Your task to perform on an android device: Turn off the flashlight Image 0: 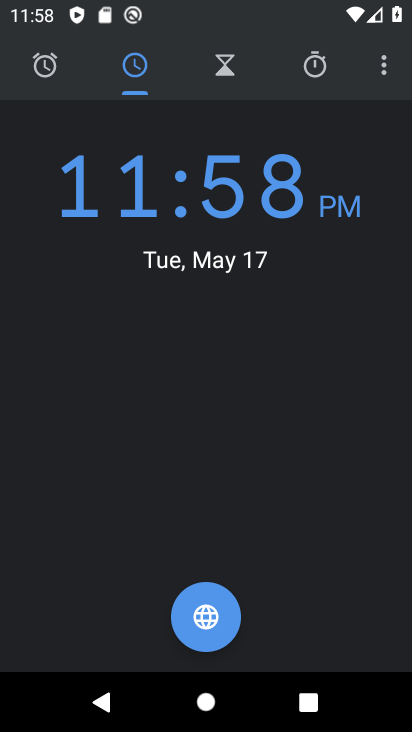
Step 0: press home button
Your task to perform on an android device: Turn off the flashlight Image 1: 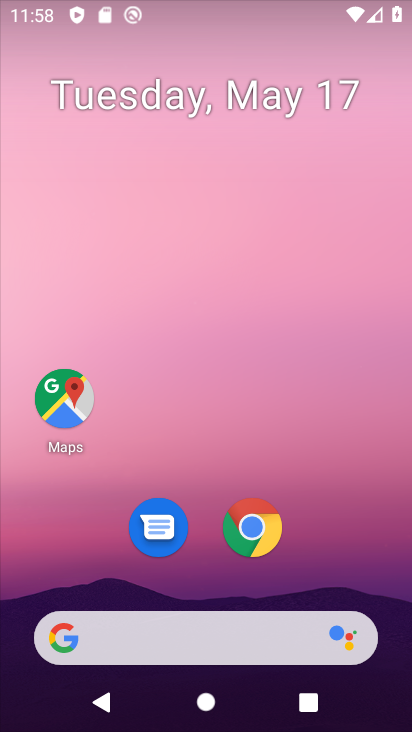
Step 1: task complete